Your task to perform on an android device: open sync settings in chrome Image 0: 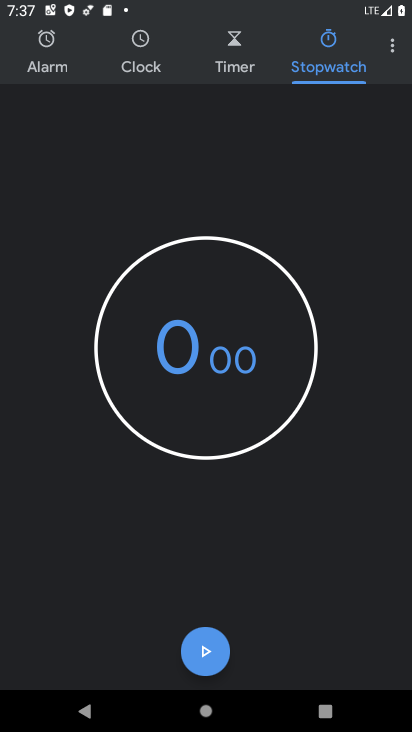
Step 0: press home button
Your task to perform on an android device: open sync settings in chrome Image 1: 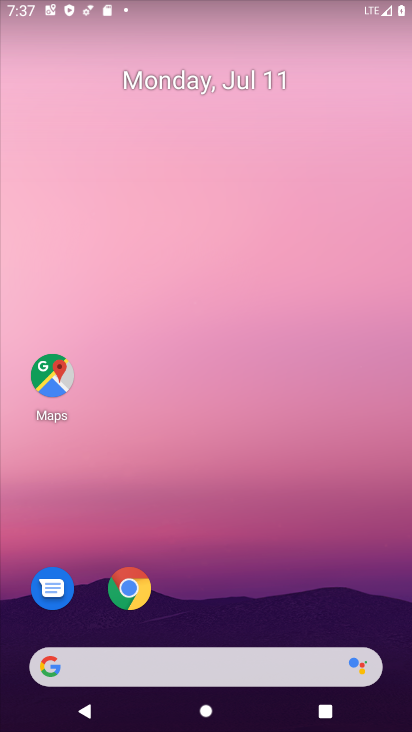
Step 1: drag from (384, 596) to (322, 27)
Your task to perform on an android device: open sync settings in chrome Image 2: 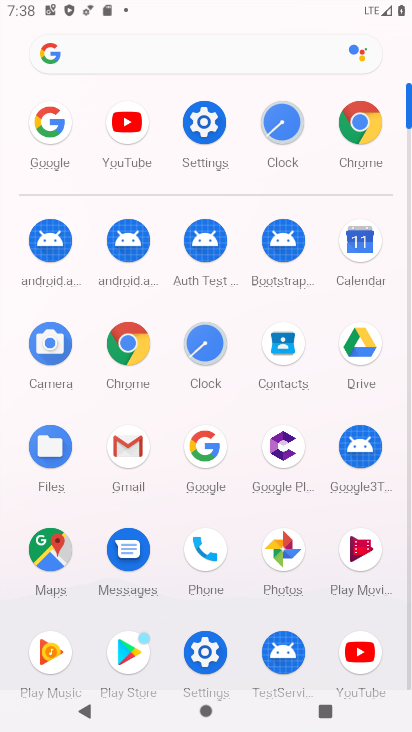
Step 2: click (134, 367)
Your task to perform on an android device: open sync settings in chrome Image 3: 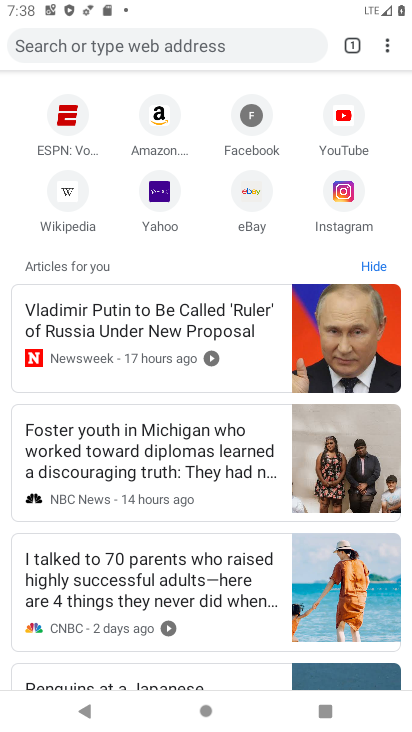
Step 3: click (382, 44)
Your task to perform on an android device: open sync settings in chrome Image 4: 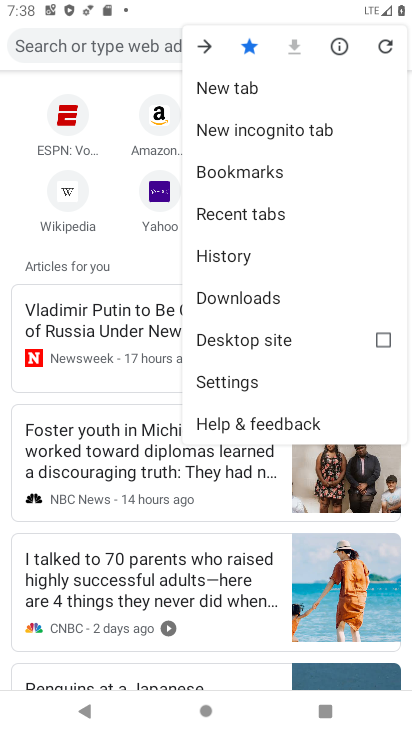
Step 4: click (213, 378)
Your task to perform on an android device: open sync settings in chrome Image 5: 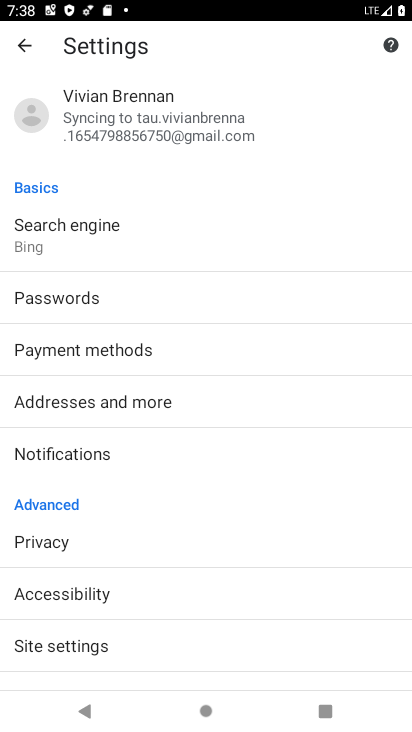
Step 5: drag from (26, 647) to (123, 181)
Your task to perform on an android device: open sync settings in chrome Image 6: 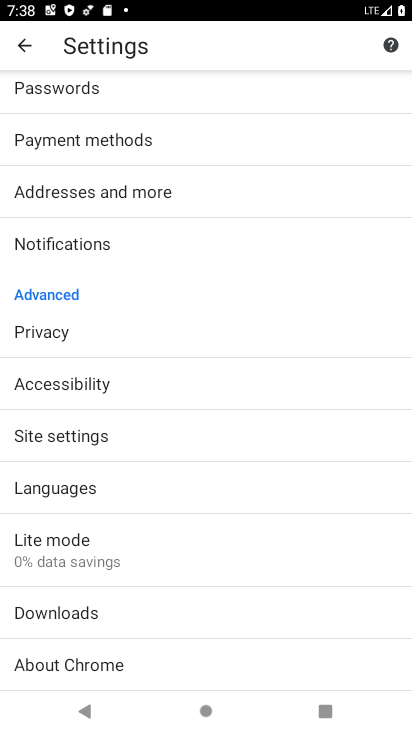
Step 6: click (124, 450)
Your task to perform on an android device: open sync settings in chrome Image 7: 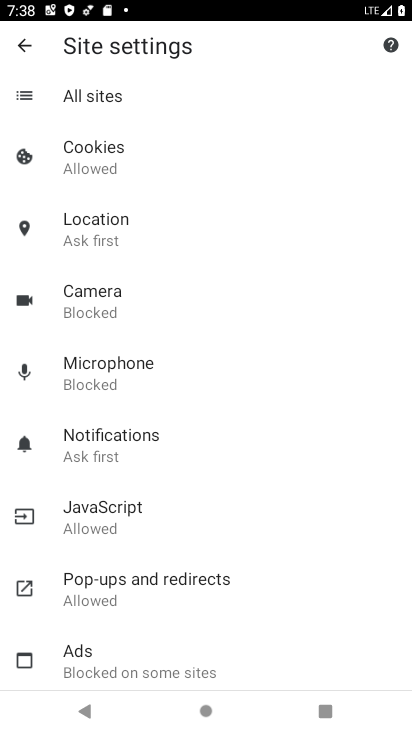
Step 7: drag from (72, 636) to (85, 81)
Your task to perform on an android device: open sync settings in chrome Image 8: 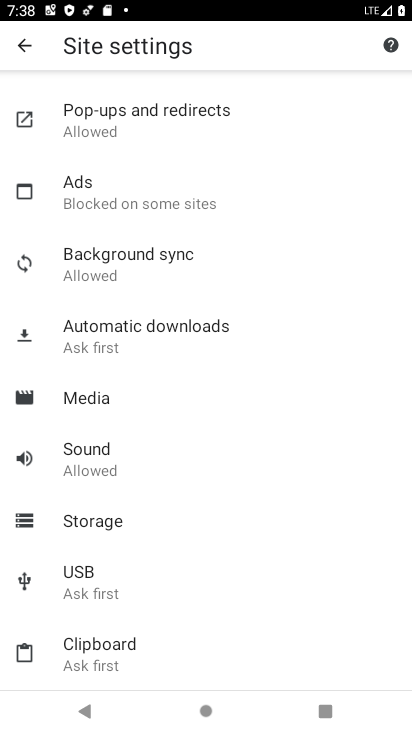
Step 8: click (112, 268)
Your task to perform on an android device: open sync settings in chrome Image 9: 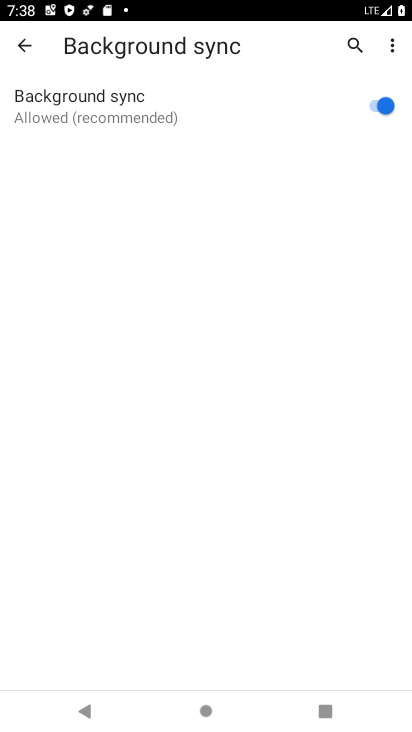
Step 9: task complete